Your task to perform on an android device: Go to calendar. Show me events next week Image 0: 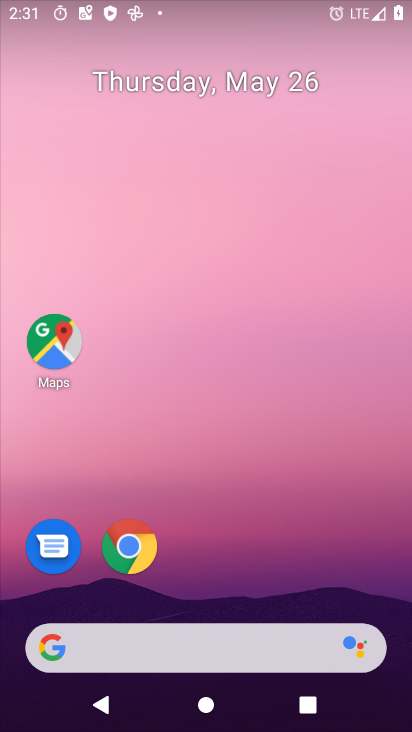
Step 0: drag from (228, 563) to (257, 40)
Your task to perform on an android device: Go to calendar. Show me events next week Image 1: 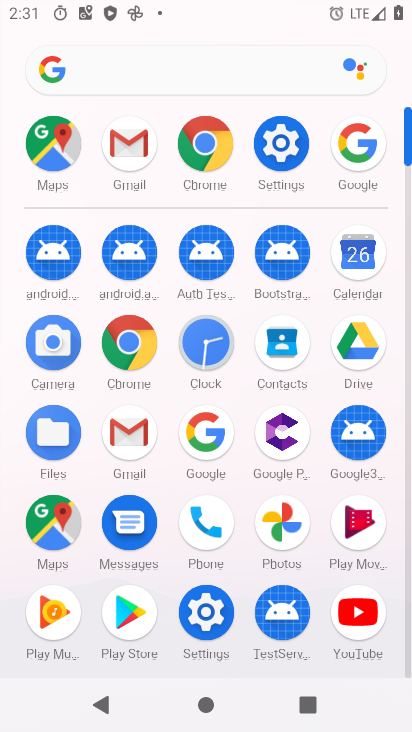
Step 1: click (355, 250)
Your task to perform on an android device: Go to calendar. Show me events next week Image 2: 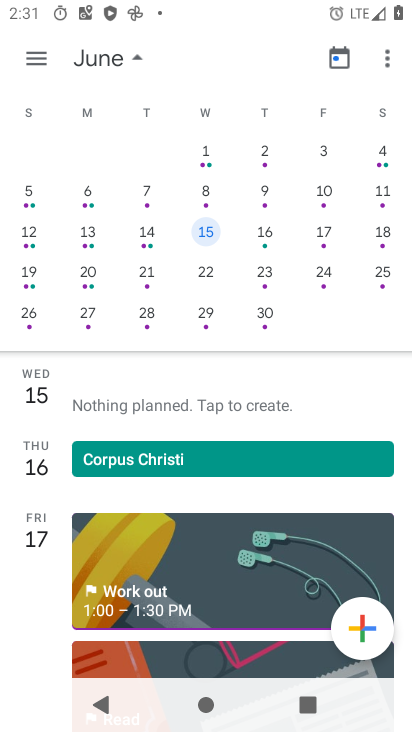
Step 2: drag from (37, 317) to (398, 328)
Your task to perform on an android device: Go to calendar. Show me events next week Image 3: 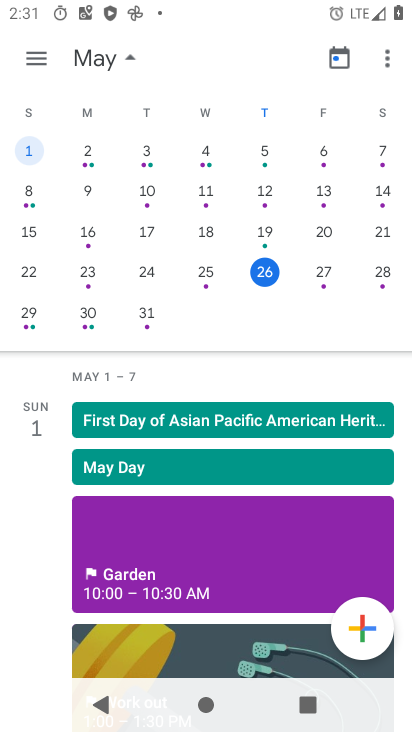
Step 3: click (76, 317)
Your task to perform on an android device: Go to calendar. Show me events next week Image 4: 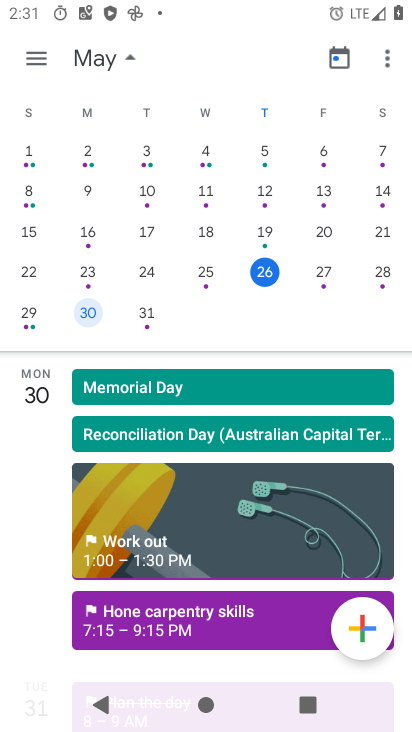
Step 4: task complete